Your task to perform on an android device: uninstall "Yahoo Mail" Image 0: 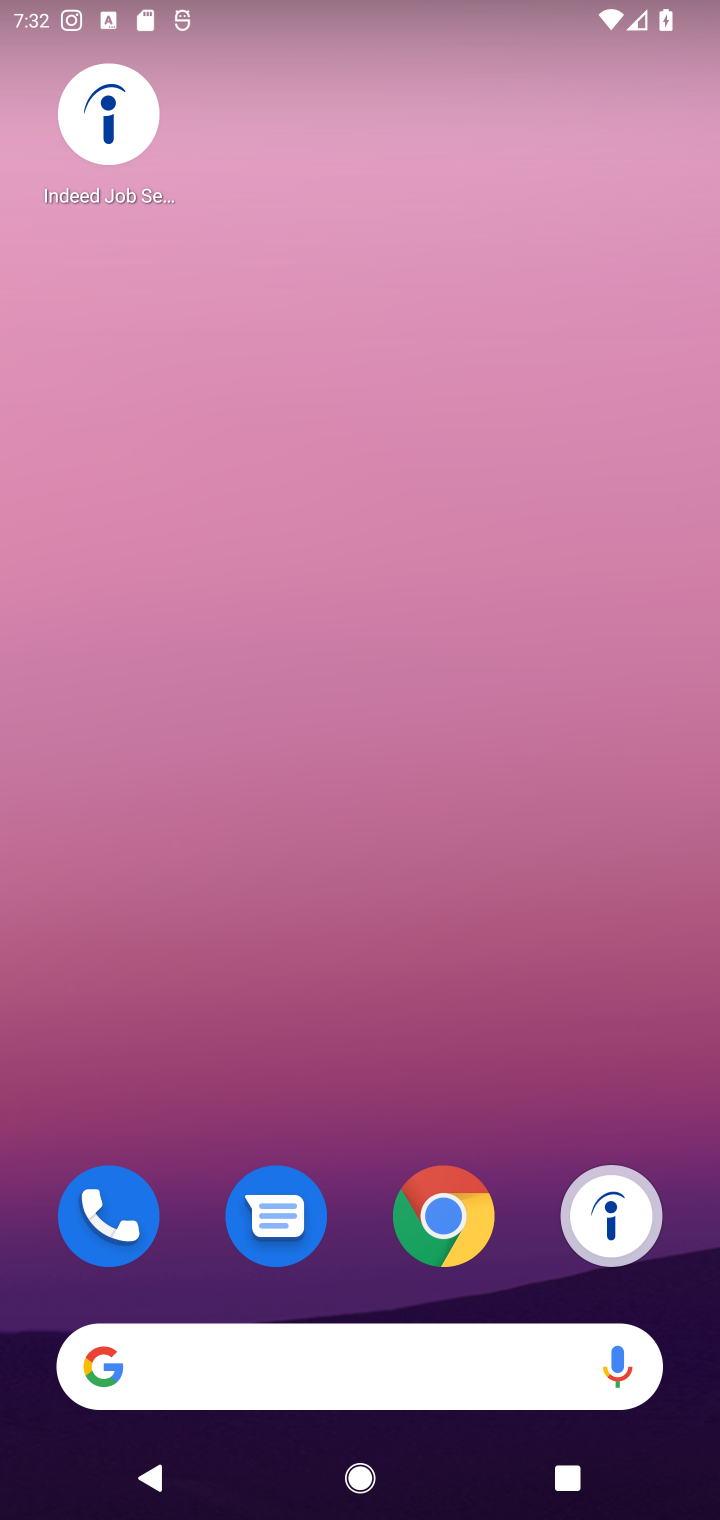
Step 0: drag from (337, 963) to (337, 356)
Your task to perform on an android device: uninstall "Yahoo Mail" Image 1: 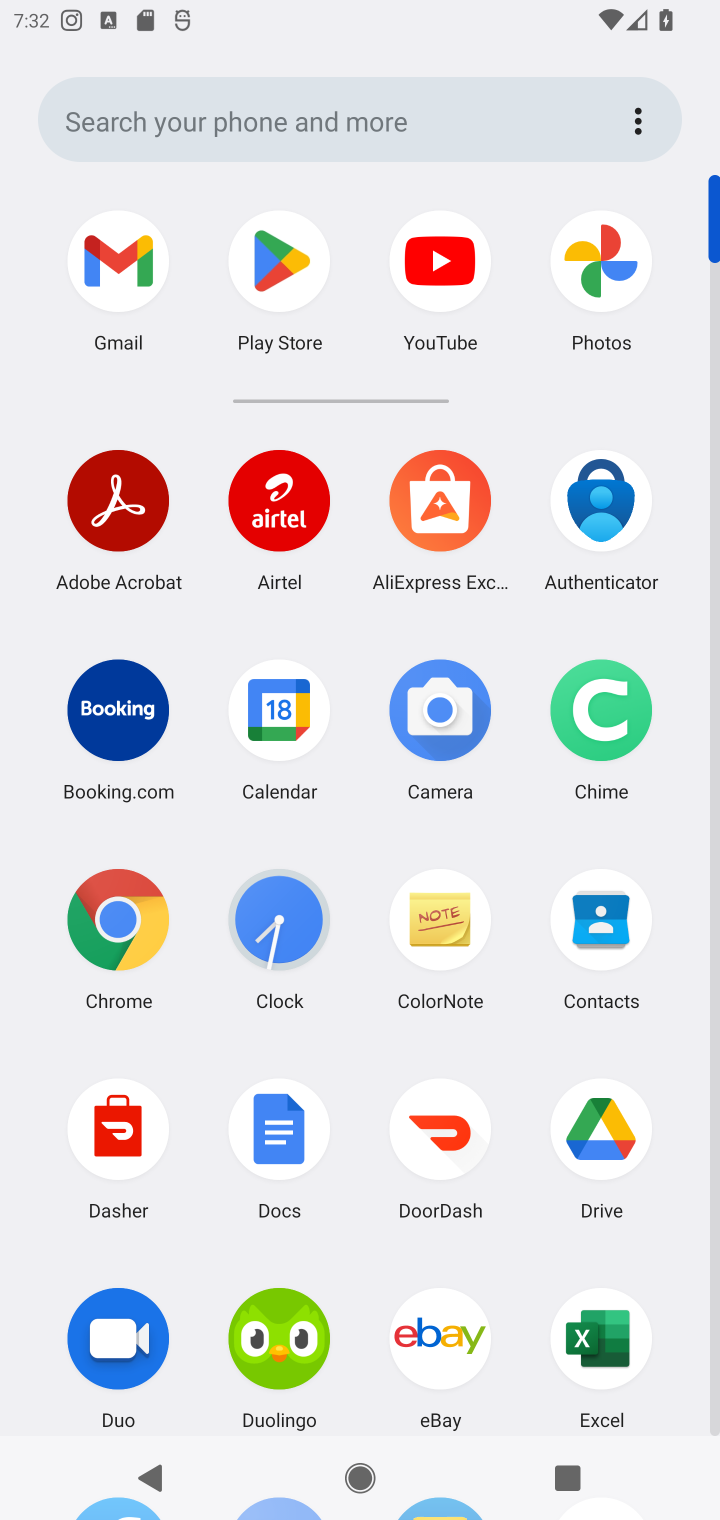
Step 1: click (273, 263)
Your task to perform on an android device: uninstall "Yahoo Mail" Image 2: 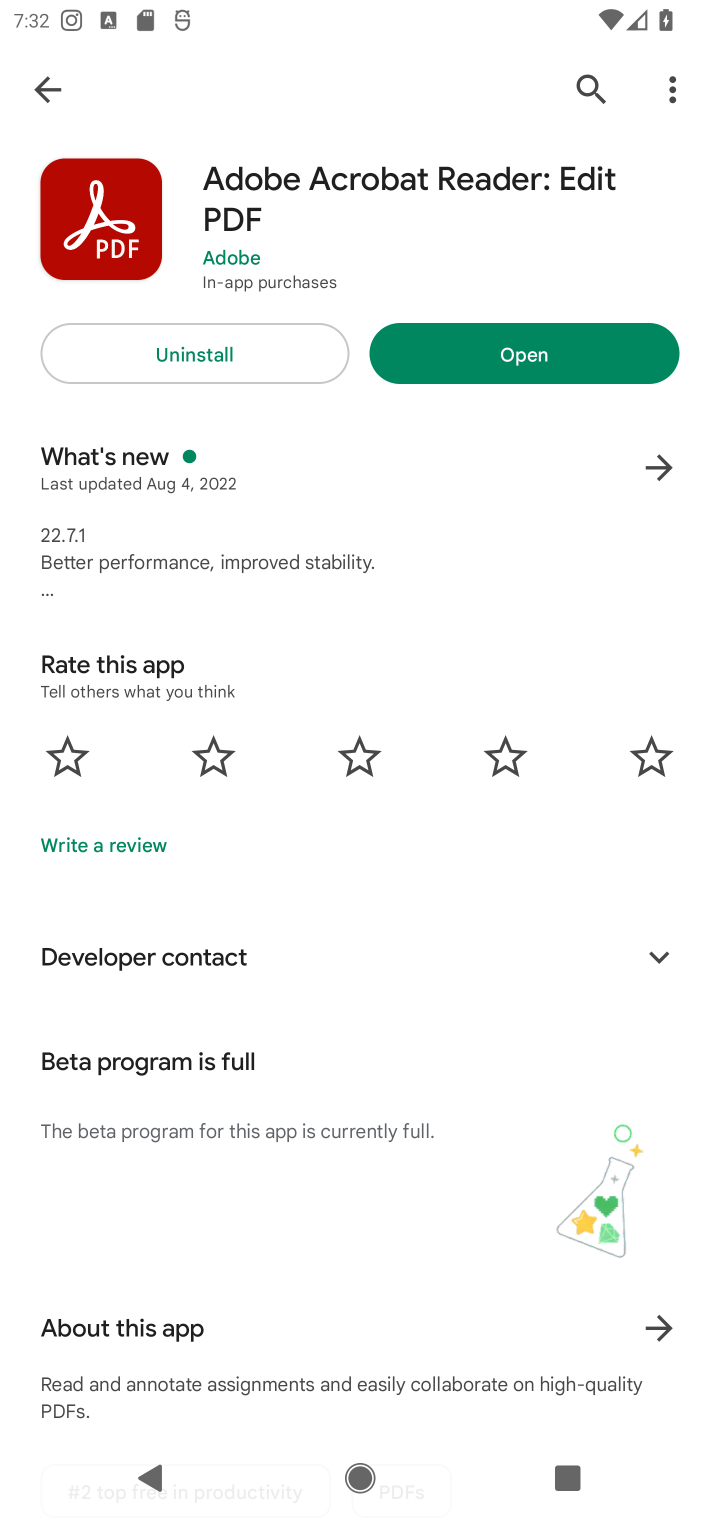
Step 2: click (580, 81)
Your task to perform on an android device: uninstall "Yahoo Mail" Image 3: 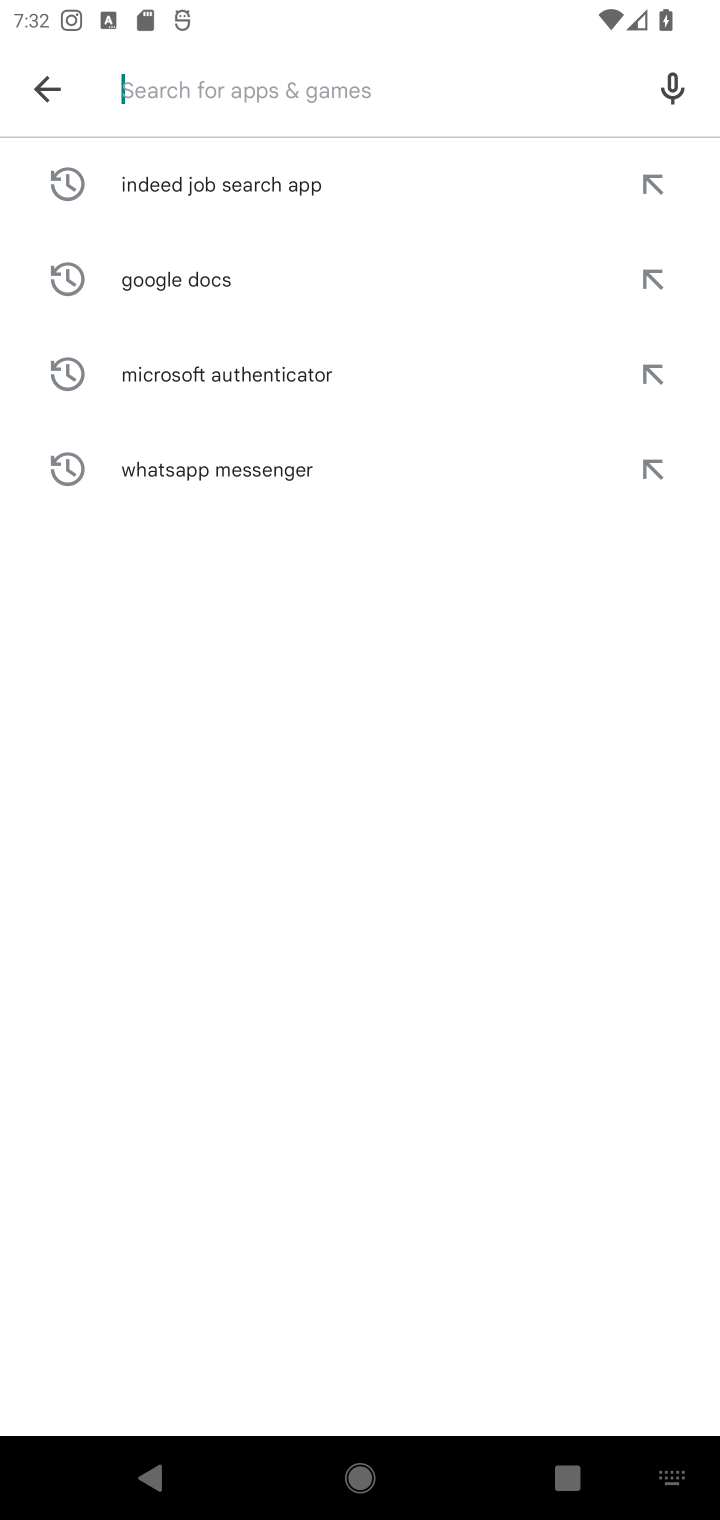
Step 3: type "Yahoo Mail"
Your task to perform on an android device: uninstall "Yahoo Mail" Image 4: 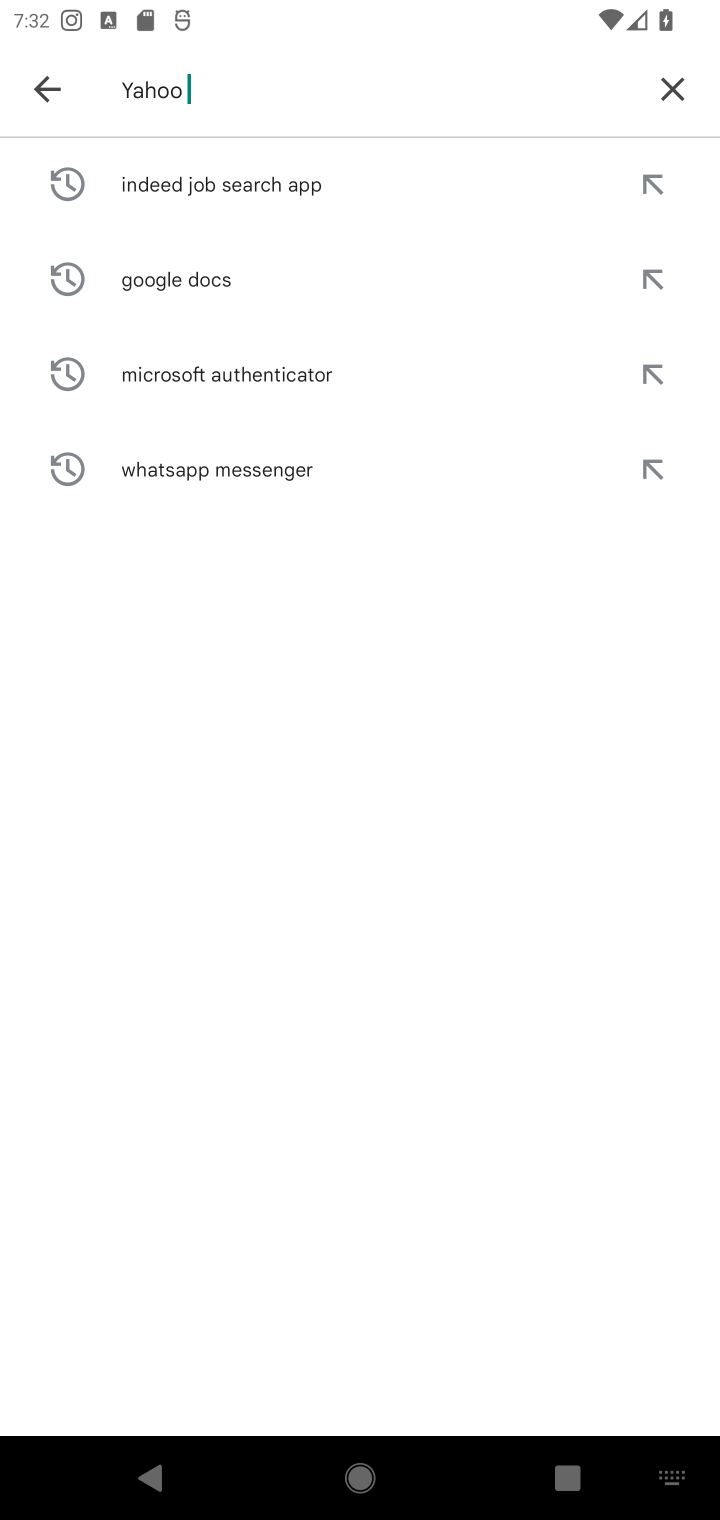
Step 4: type ""
Your task to perform on an android device: uninstall "Yahoo Mail" Image 5: 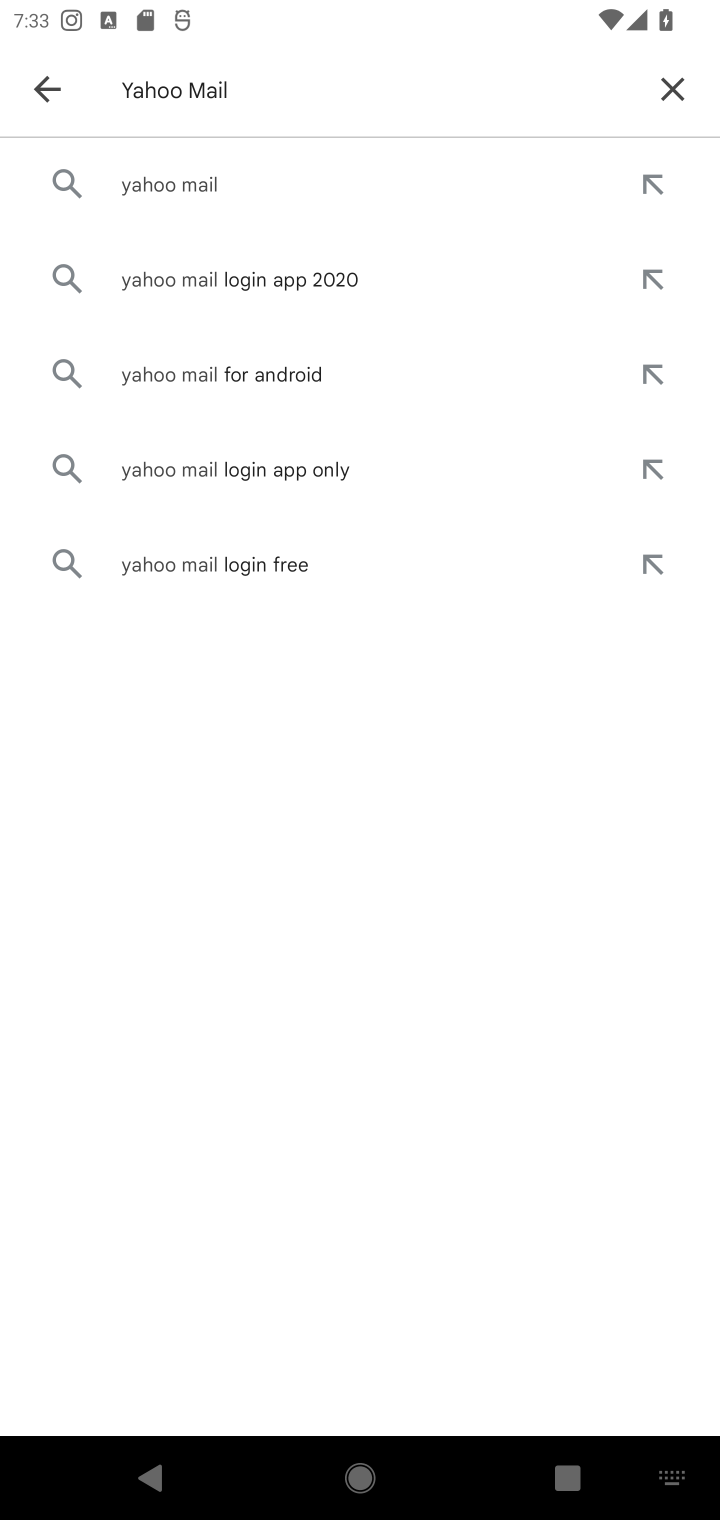
Step 5: click (255, 172)
Your task to perform on an android device: uninstall "Yahoo Mail" Image 6: 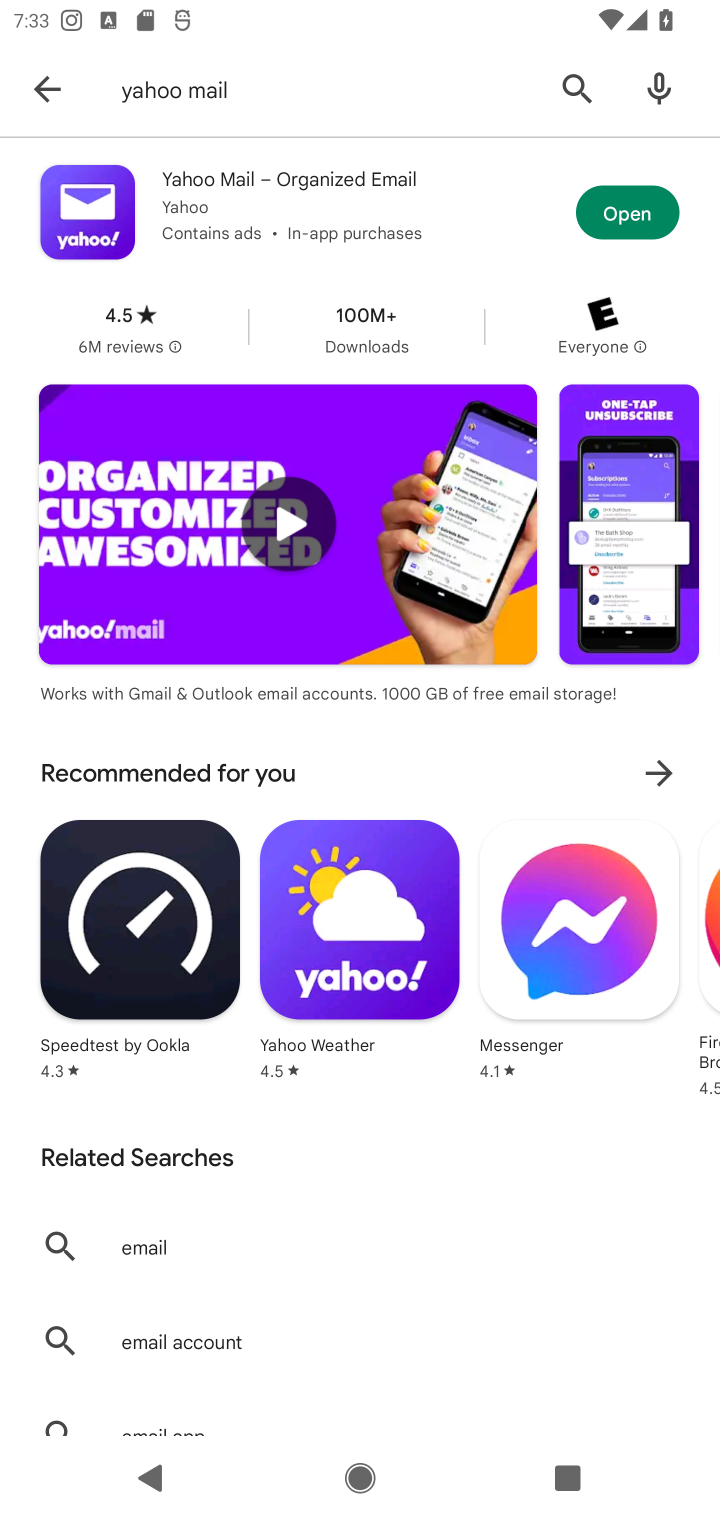
Step 6: click (330, 226)
Your task to perform on an android device: uninstall "Yahoo Mail" Image 7: 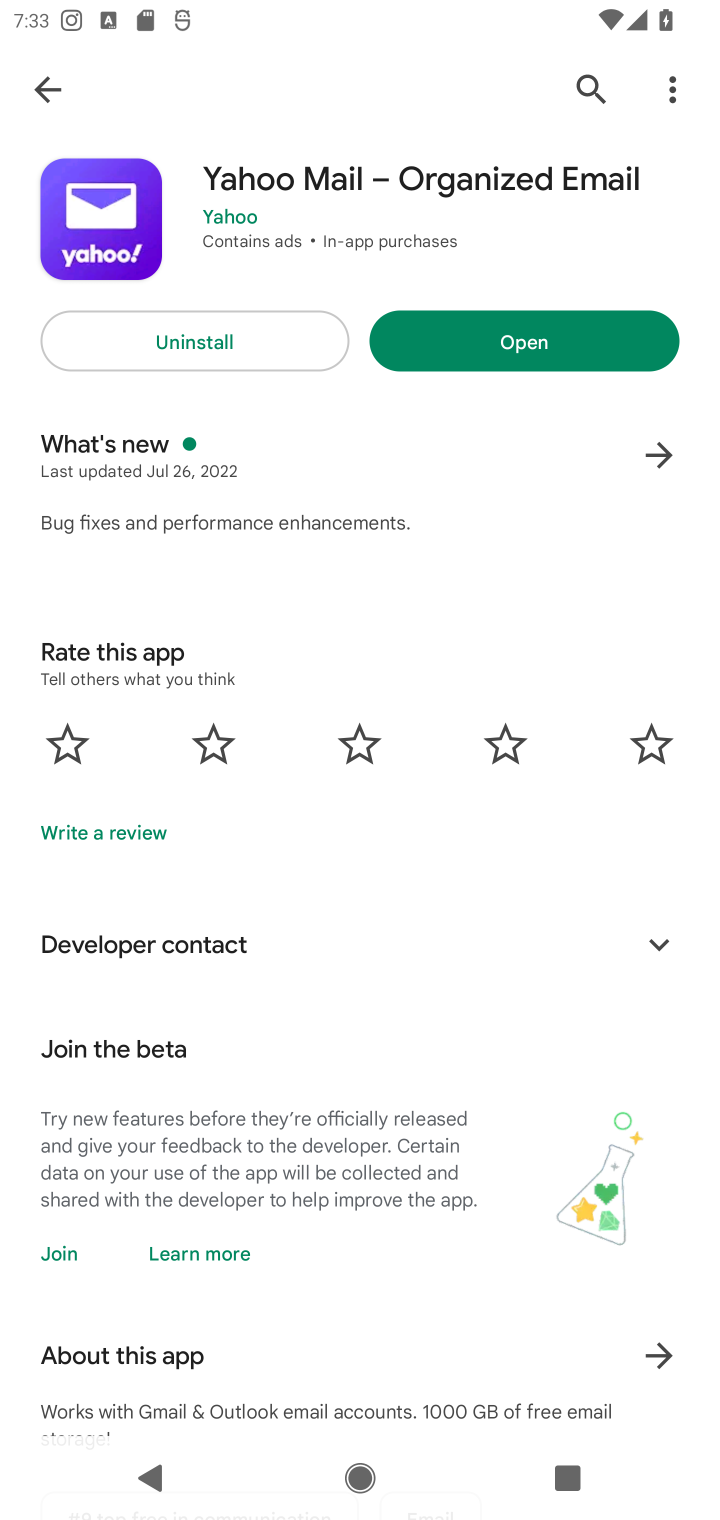
Step 7: click (212, 350)
Your task to perform on an android device: uninstall "Yahoo Mail" Image 8: 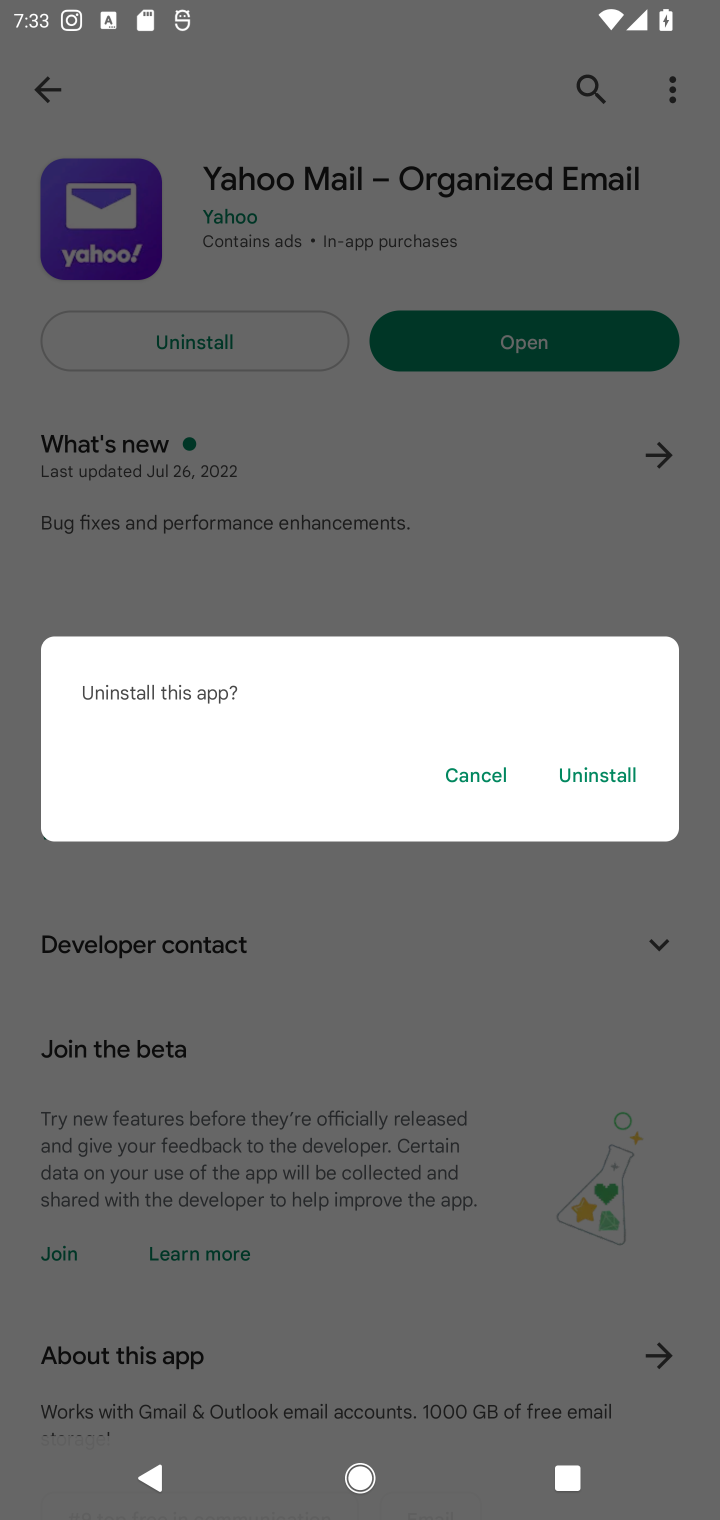
Step 8: click (583, 777)
Your task to perform on an android device: uninstall "Yahoo Mail" Image 9: 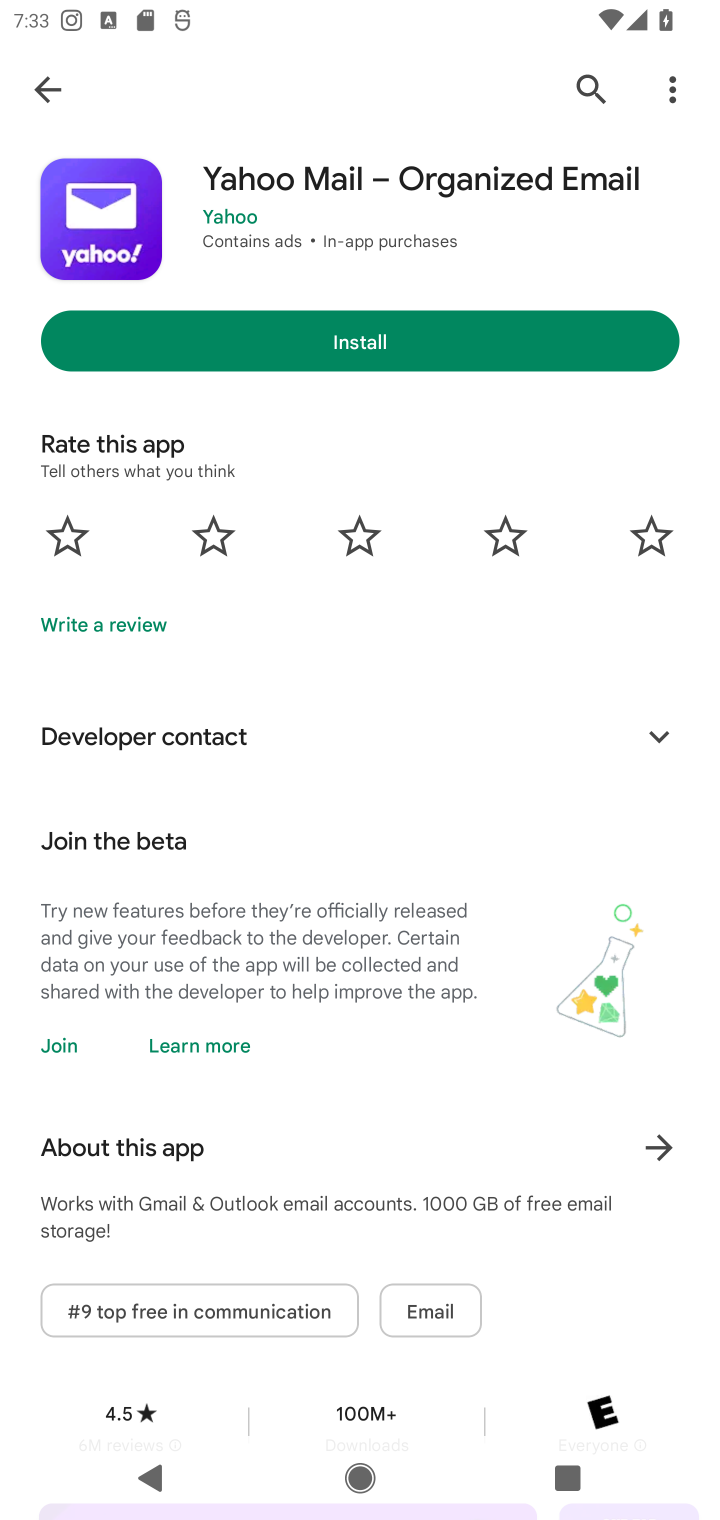
Step 9: task complete